Your task to perform on an android device: Show me recent news Image 0: 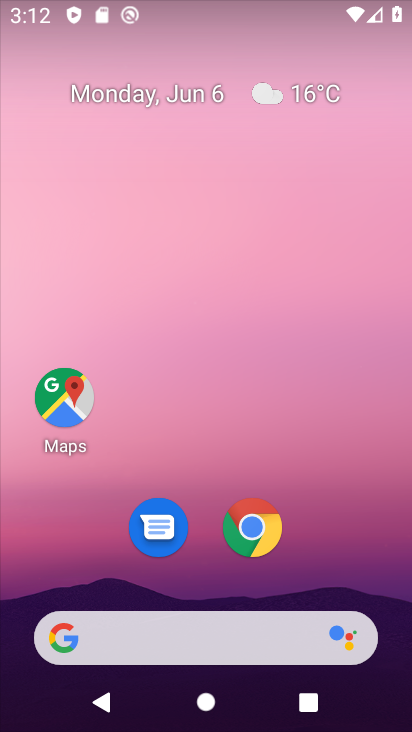
Step 0: drag from (345, 549) to (229, 68)
Your task to perform on an android device: Show me recent news Image 1: 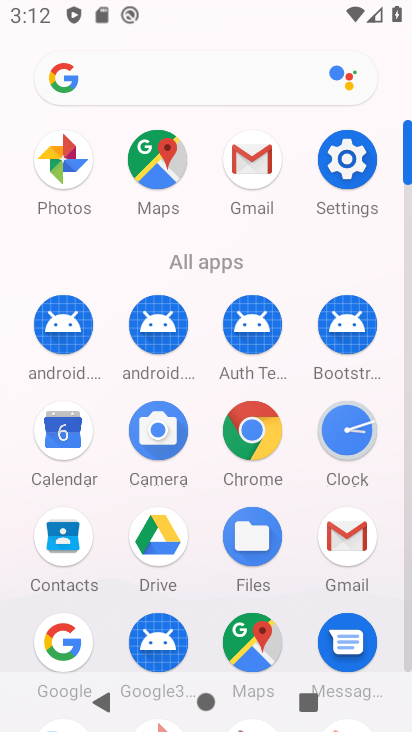
Step 1: click (56, 641)
Your task to perform on an android device: Show me recent news Image 2: 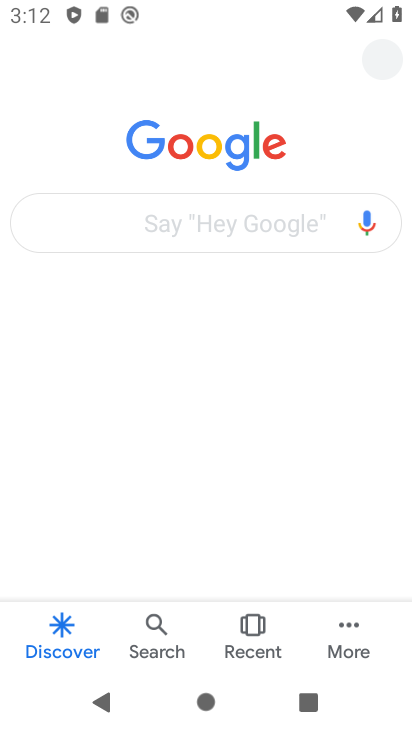
Step 2: click (181, 187)
Your task to perform on an android device: Show me recent news Image 3: 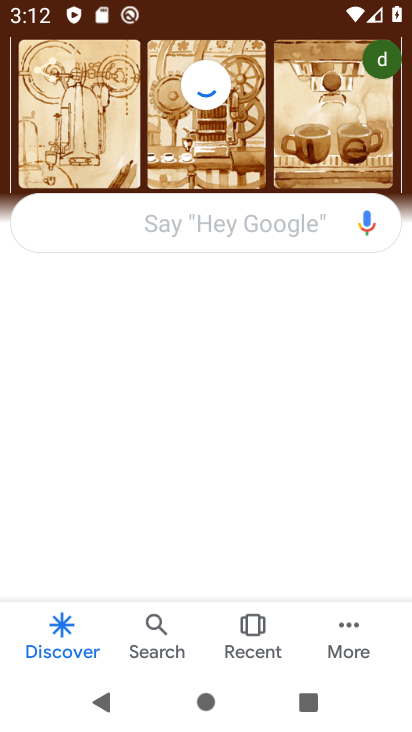
Step 3: click (183, 207)
Your task to perform on an android device: Show me recent news Image 4: 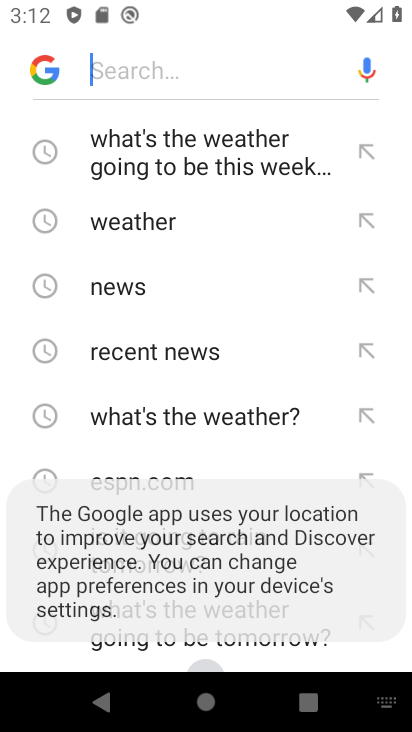
Step 4: click (164, 353)
Your task to perform on an android device: Show me recent news Image 5: 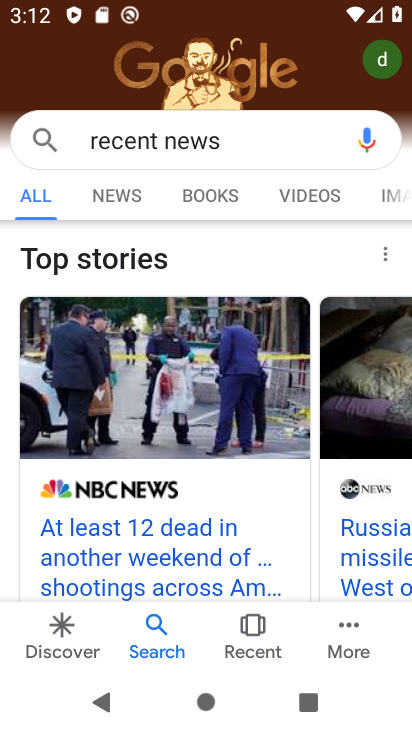
Step 5: task complete